Your task to perform on an android device: toggle wifi Image 0: 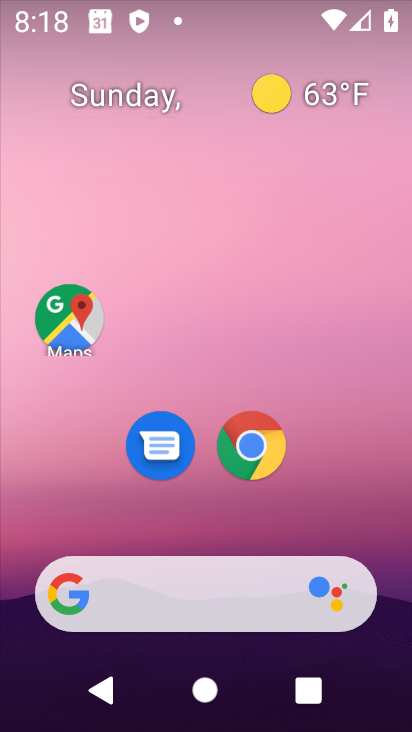
Step 0: drag from (211, 520) to (398, 3)
Your task to perform on an android device: toggle wifi Image 1: 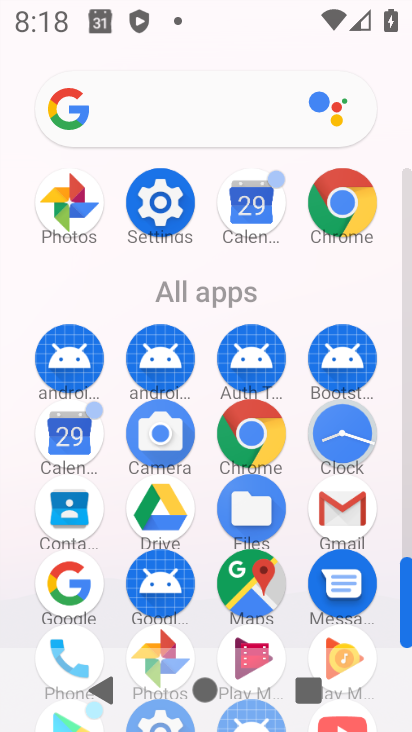
Step 1: click (161, 211)
Your task to perform on an android device: toggle wifi Image 2: 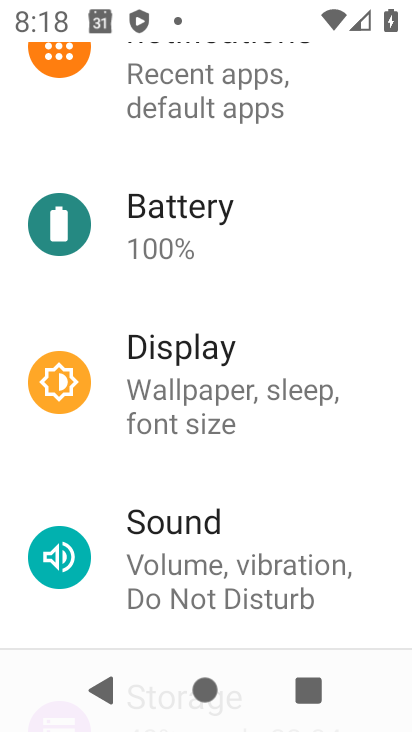
Step 2: drag from (214, 200) to (159, 632)
Your task to perform on an android device: toggle wifi Image 3: 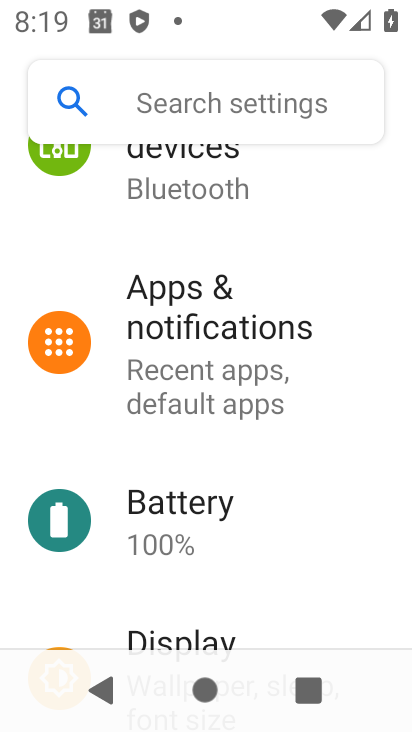
Step 3: drag from (266, 240) to (132, 730)
Your task to perform on an android device: toggle wifi Image 4: 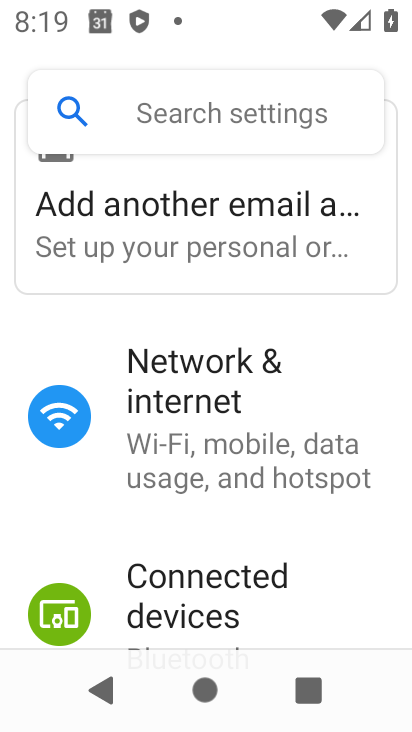
Step 4: click (257, 430)
Your task to perform on an android device: toggle wifi Image 5: 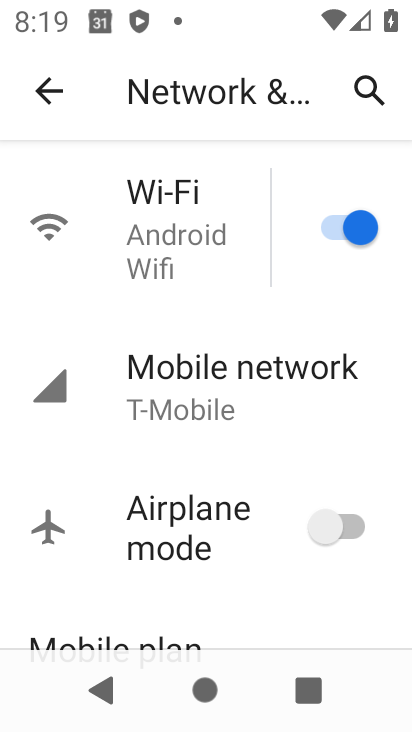
Step 5: click (359, 231)
Your task to perform on an android device: toggle wifi Image 6: 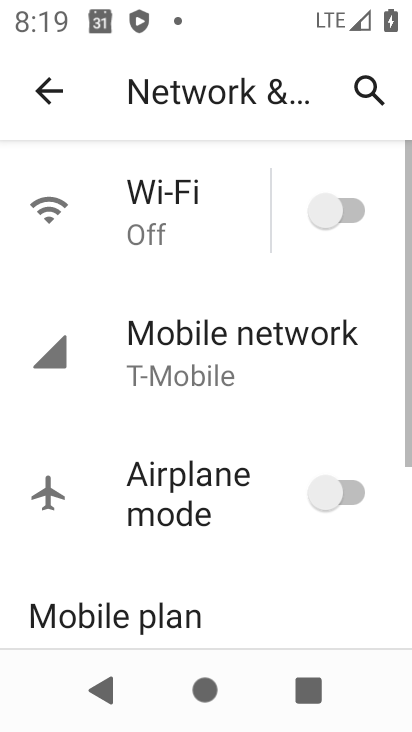
Step 6: task complete